Your task to perform on an android device: delete a single message in the gmail app Image 0: 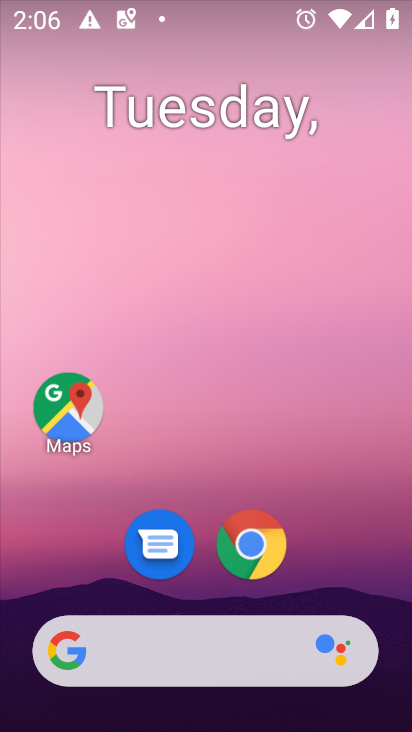
Step 0: drag from (270, 288) to (175, 40)
Your task to perform on an android device: delete a single message in the gmail app Image 1: 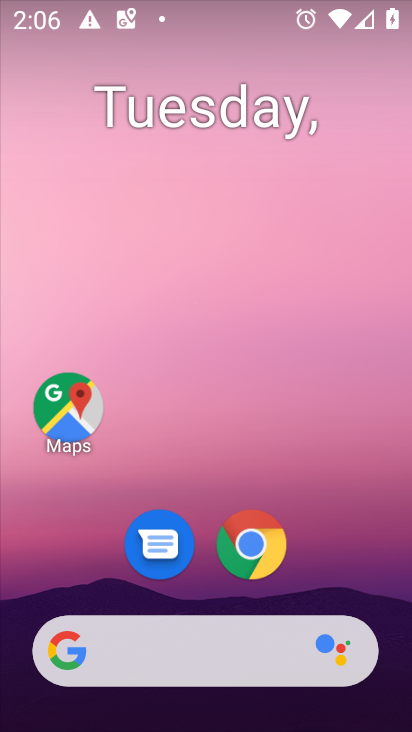
Step 1: drag from (323, 423) to (228, 54)
Your task to perform on an android device: delete a single message in the gmail app Image 2: 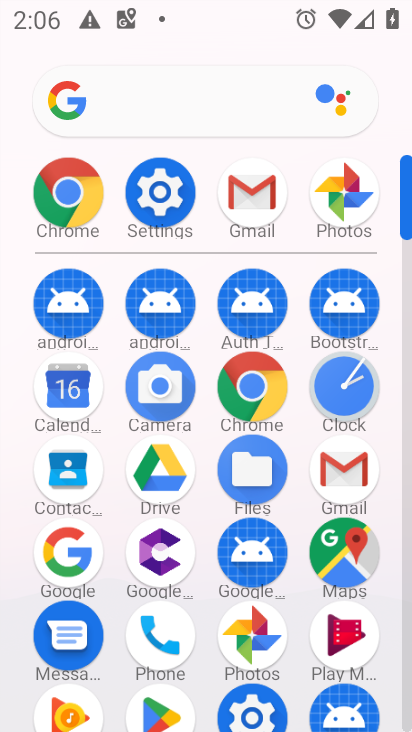
Step 2: click (349, 470)
Your task to perform on an android device: delete a single message in the gmail app Image 3: 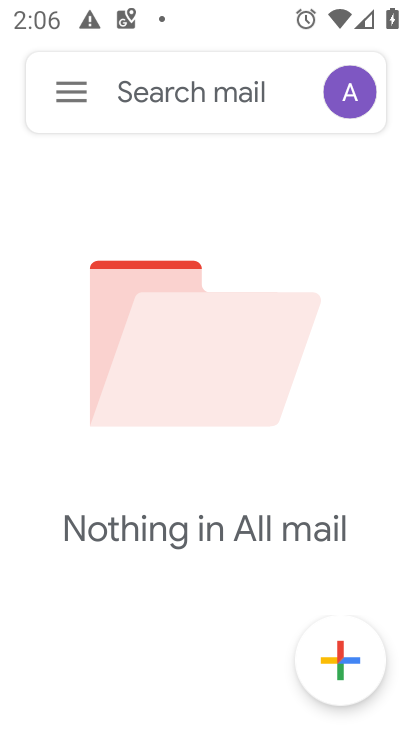
Step 3: click (55, 81)
Your task to perform on an android device: delete a single message in the gmail app Image 4: 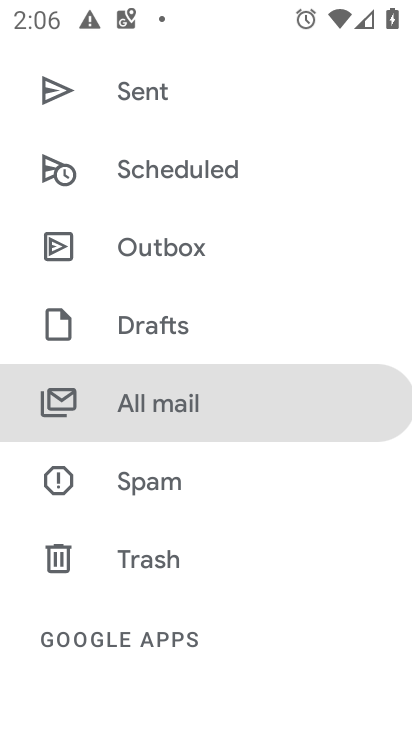
Step 4: drag from (254, 617) to (299, 157)
Your task to perform on an android device: delete a single message in the gmail app Image 5: 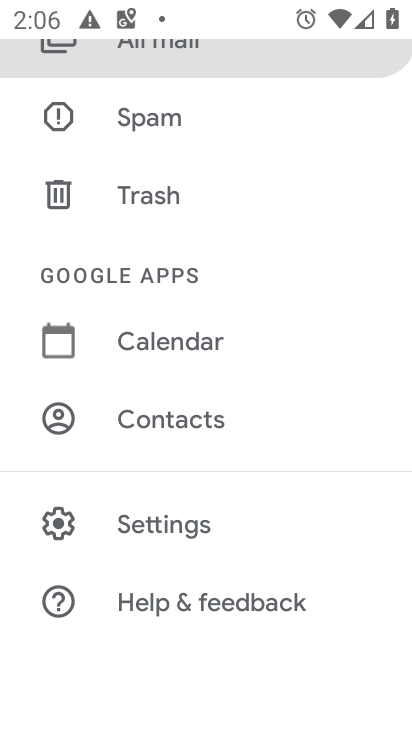
Step 5: drag from (236, 186) to (326, 644)
Your task to perform on an android device: delete a single message in the gmail app Image 6: 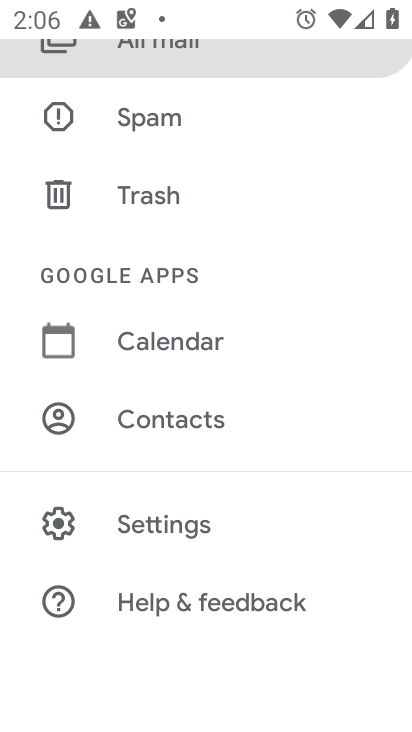
Step 6: drag from (110, 124) to (190, 590)
Your task to perform on an android device: delete a single message in the gmail app Image 7: 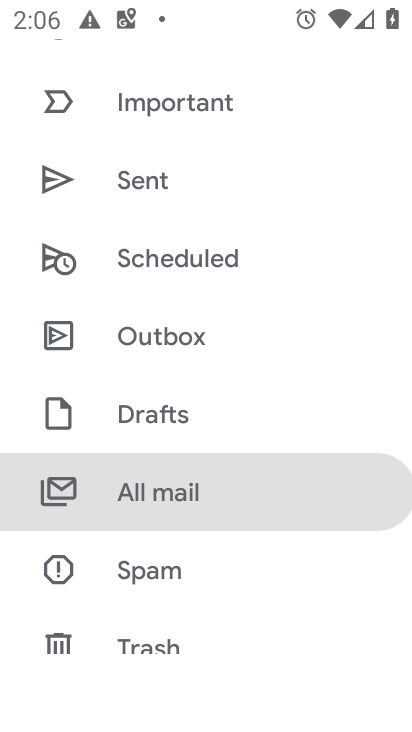
Step 7: click (175, 481)
Your task to perform on an android device: delete a single message in the gmail app Image 8: 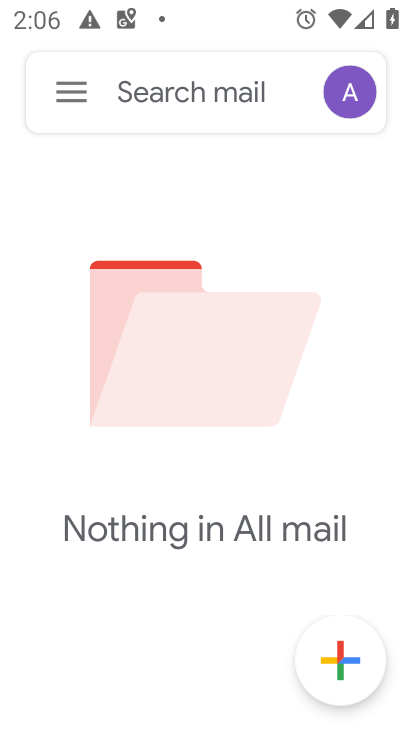
Step 8: task complete